Your task to perform on an android device: turn off improve location accuracy Image 0: 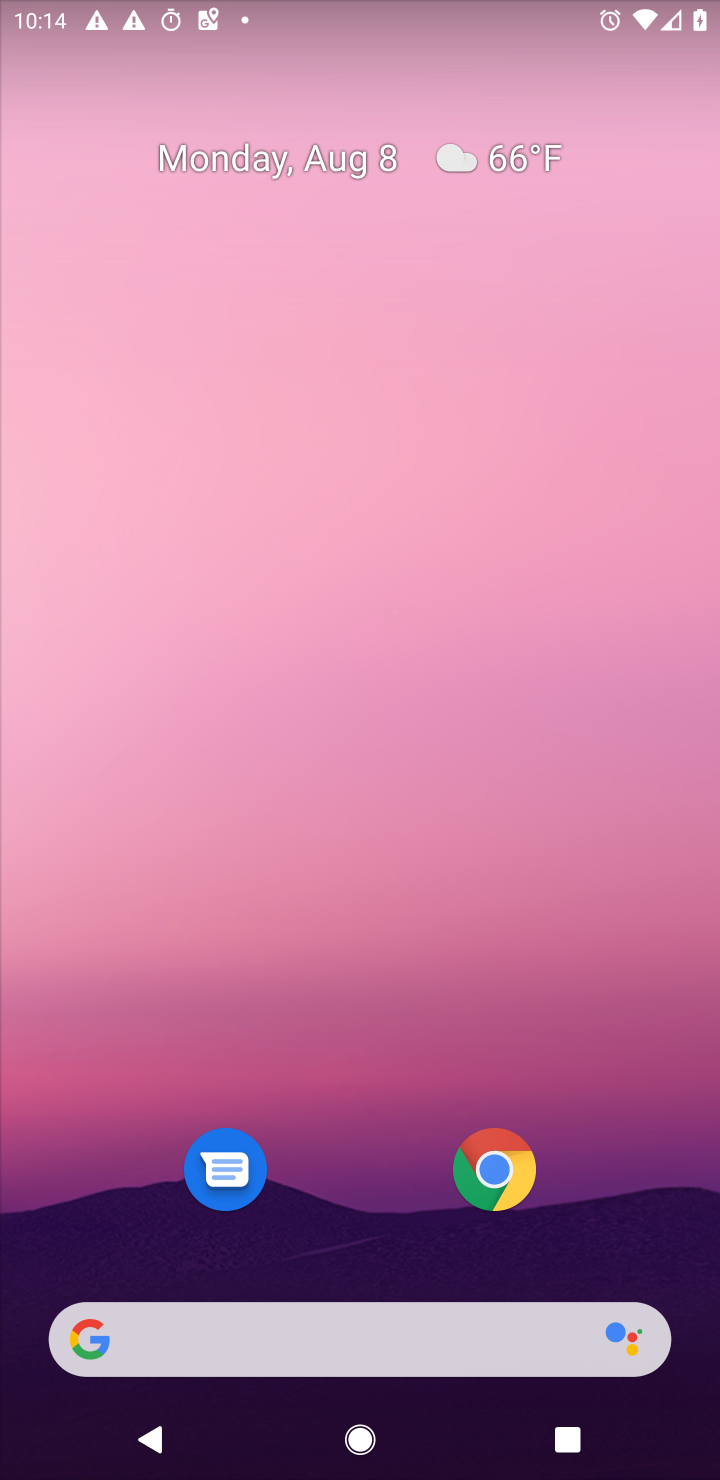
Step 0: drag from (313, 1280) to (567, 211)
Your task to perform on an android device: turn off improve location accuracy Image 1: 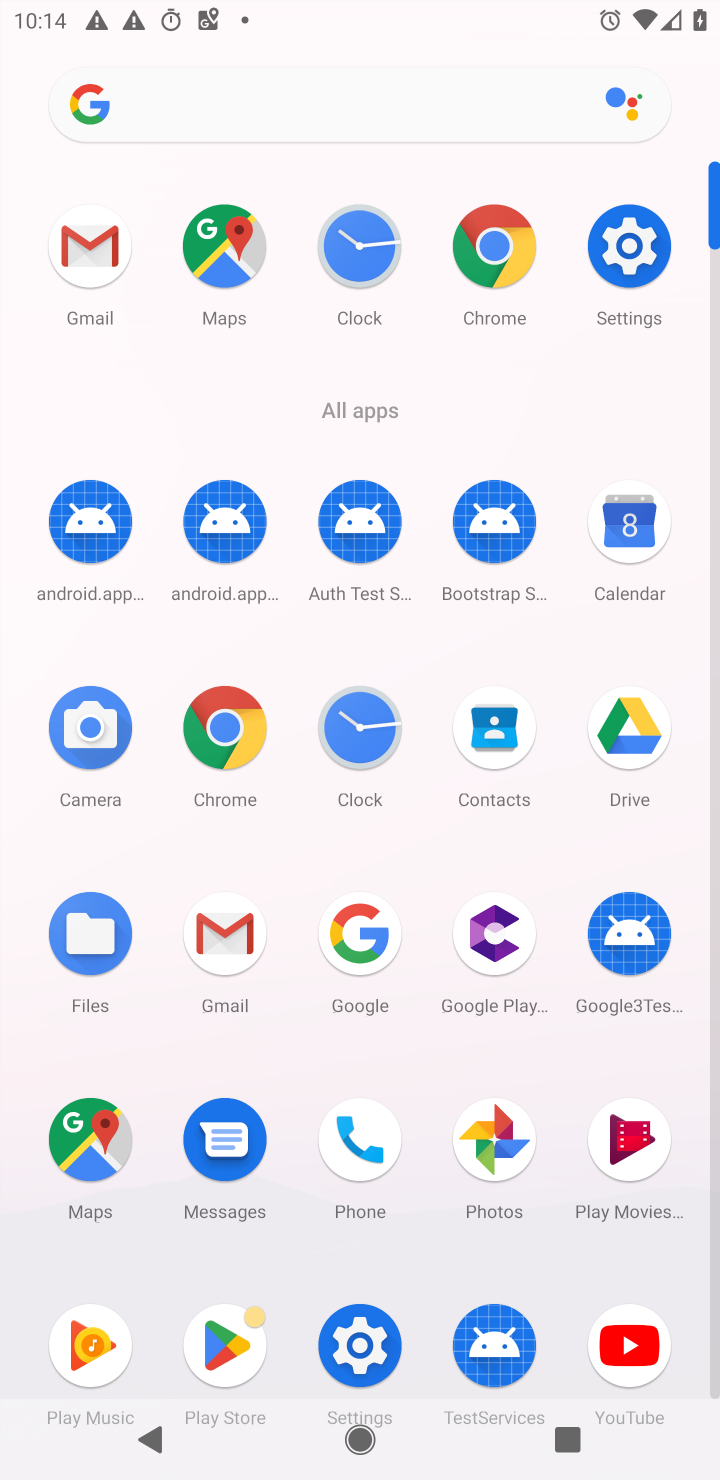
Step 1: click (653, 262)
Your task to perform on an android device: turn off improve location accuracy Image 2: 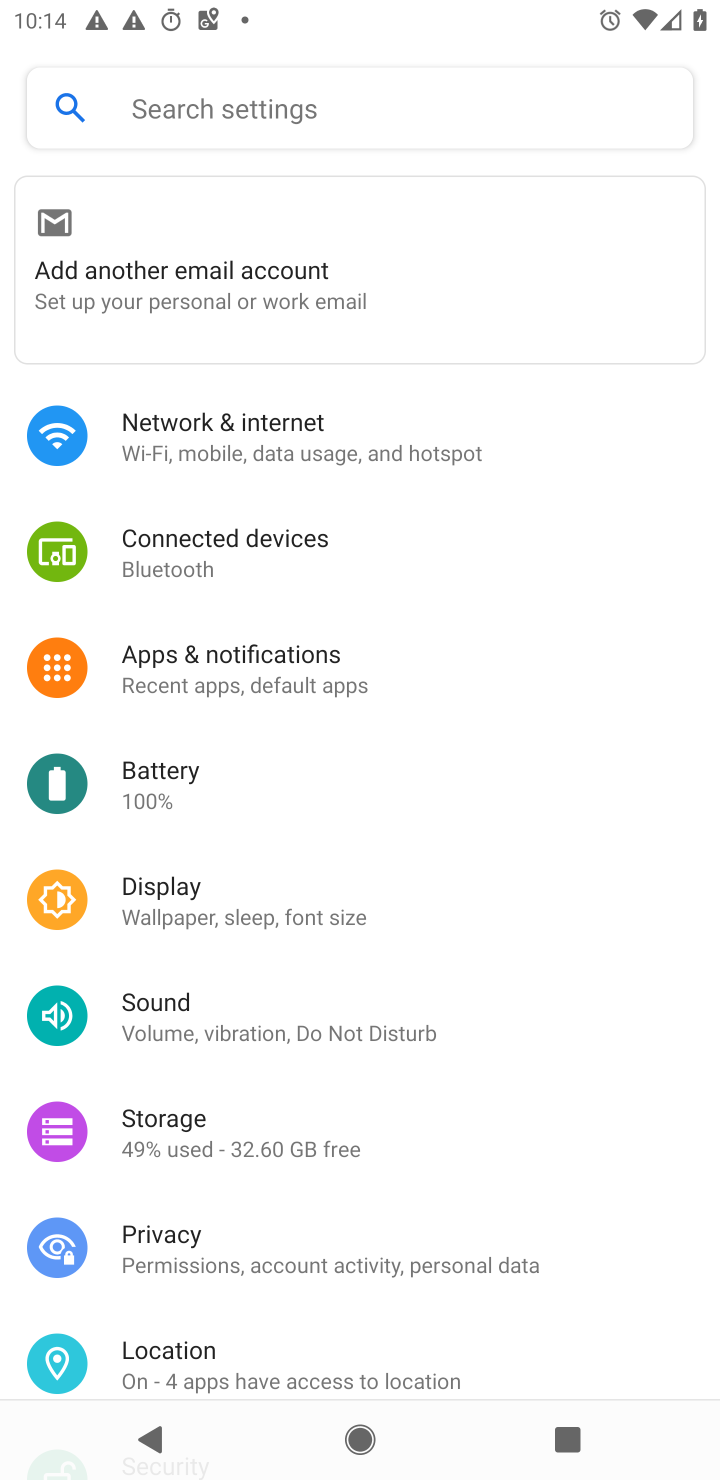
Step 2: click (188, 1341)
Your task to perform on an android device: turn off improve location accuracy Image 3: 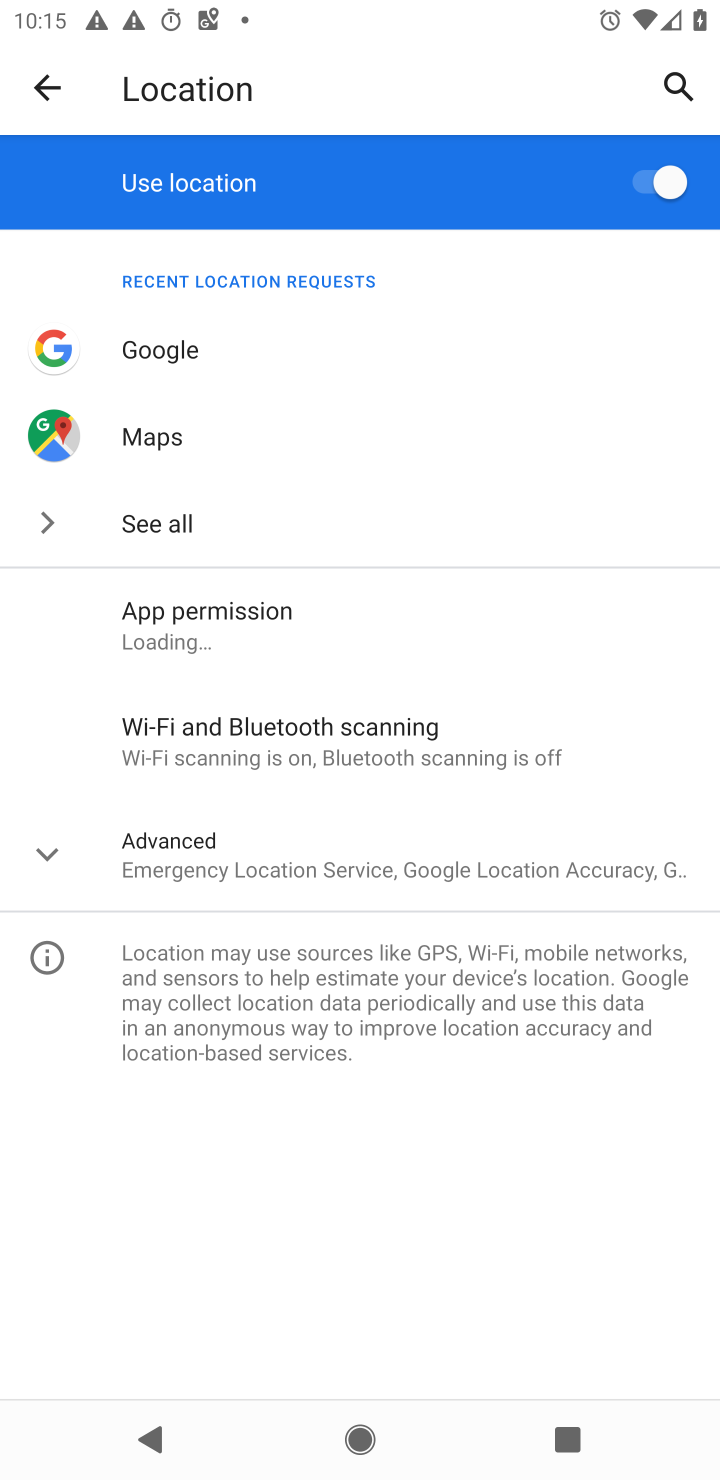
Step 3: click (248, 851)
Your task to perform on an android device: turn off improve location accuracy Image 4: 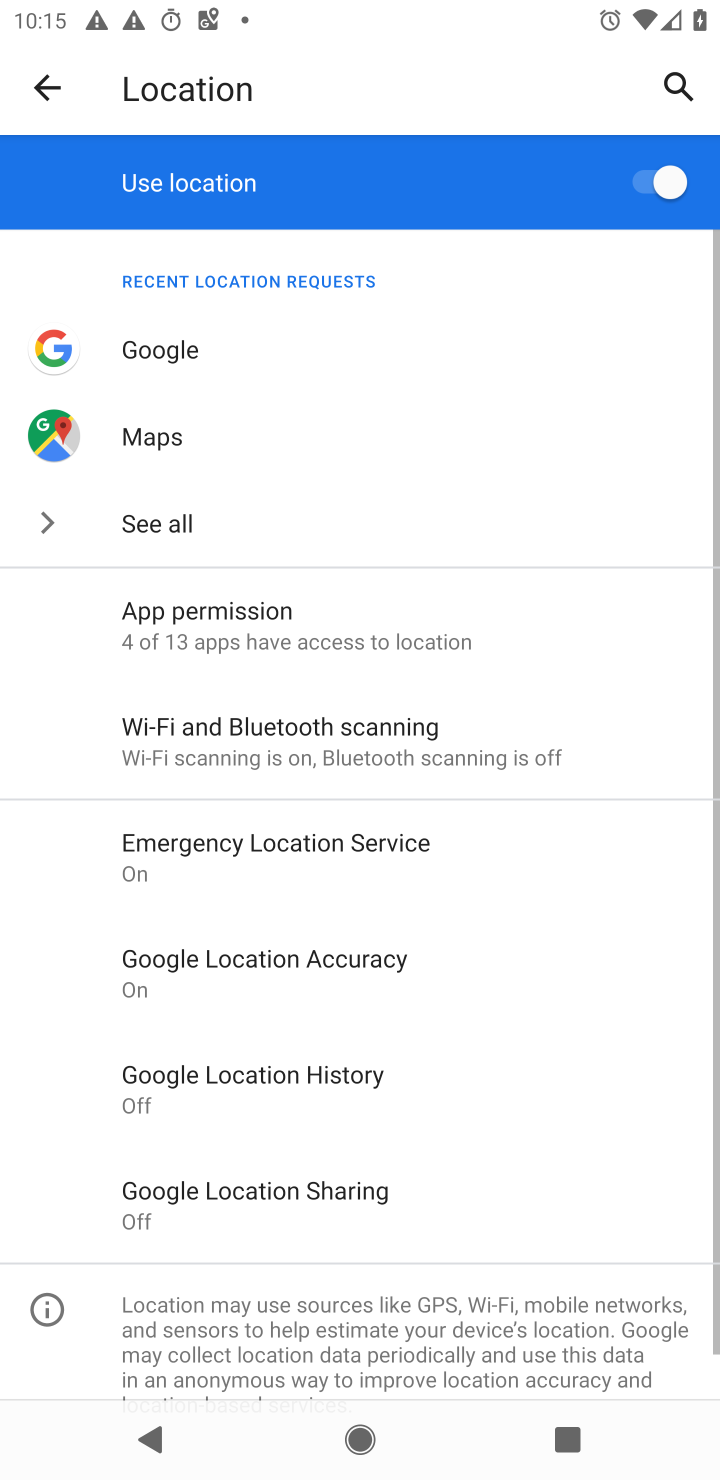
Step 4: click (286, 943)
Your task to perform on an android device: turn off improve location accuracy Image 5: 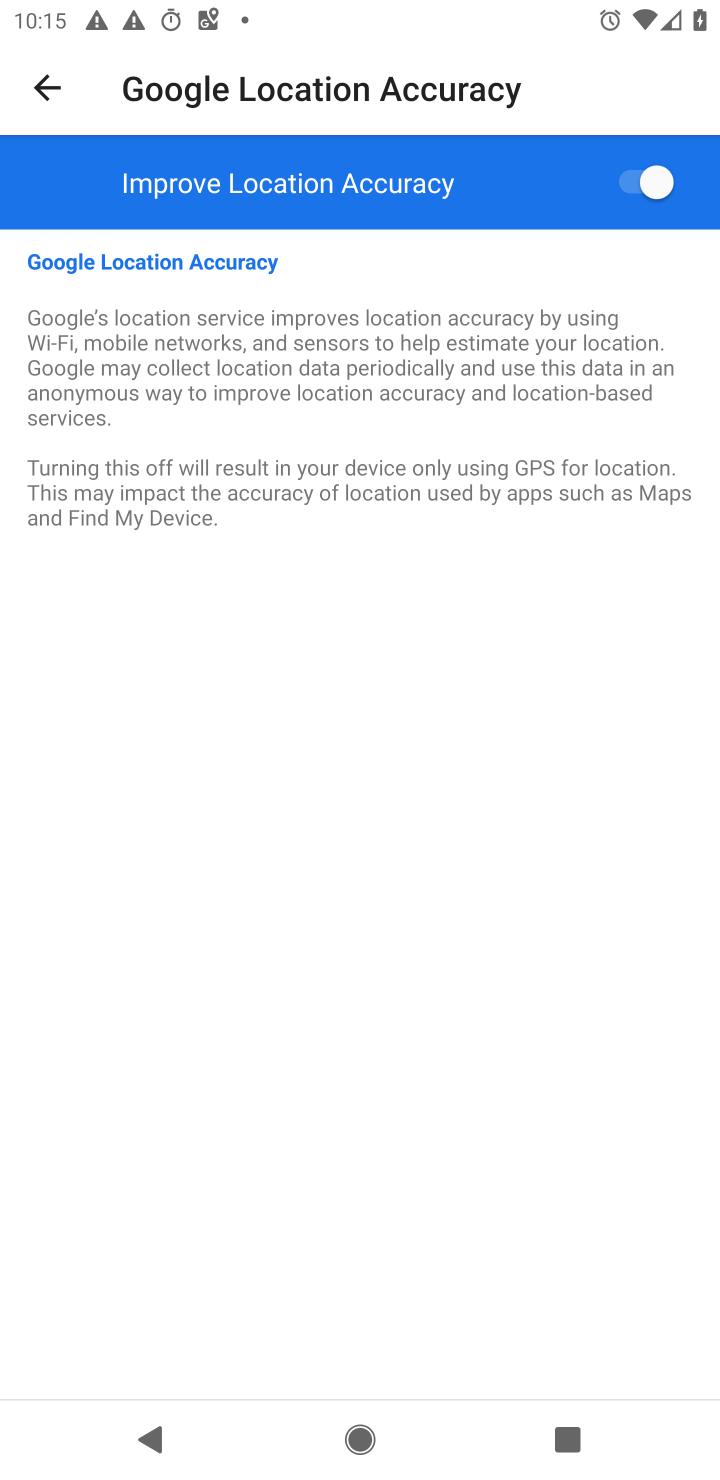
Step 5: click (643, 184)
Your task to perform on an android device: turn off improve location accuracy Image 6: 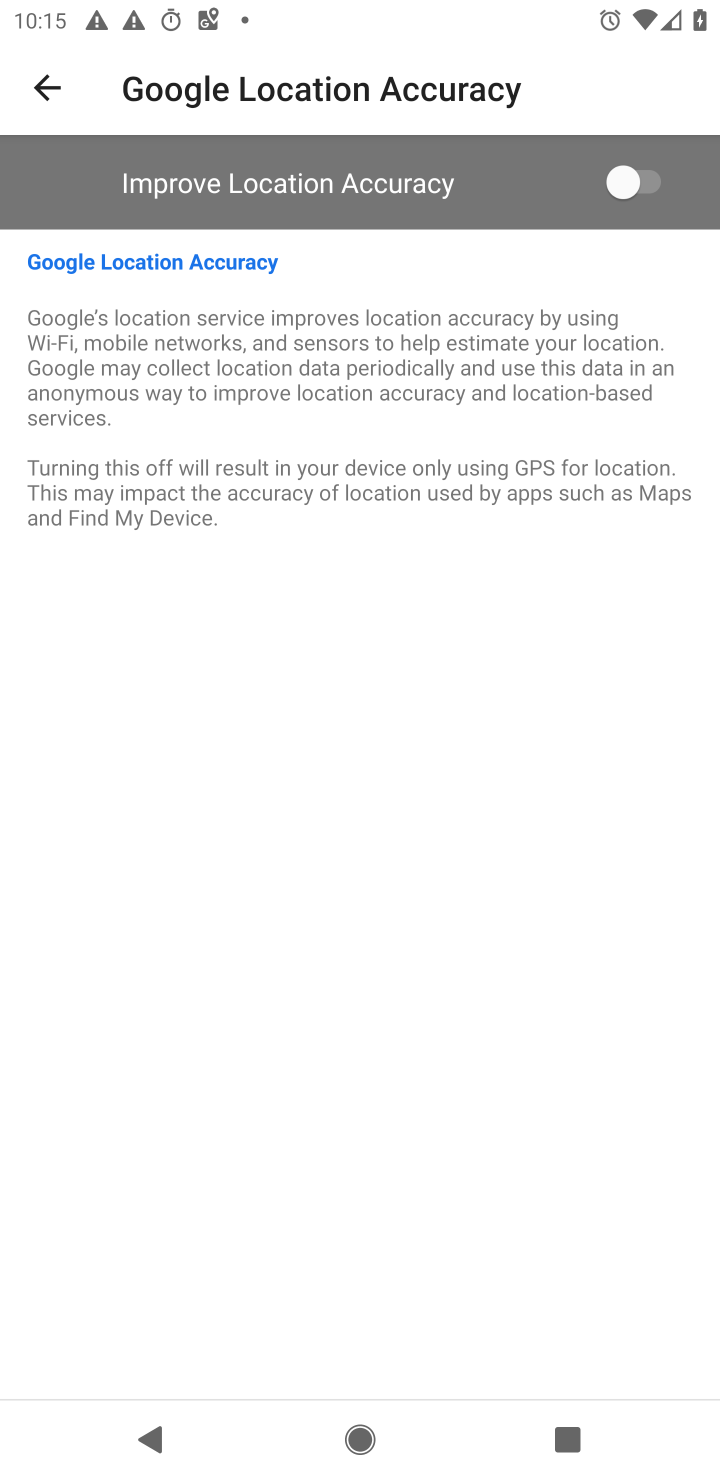
Step 6: task complete